Your task to perform on an android device: turn off notifications settings in the gmail app Image 0: 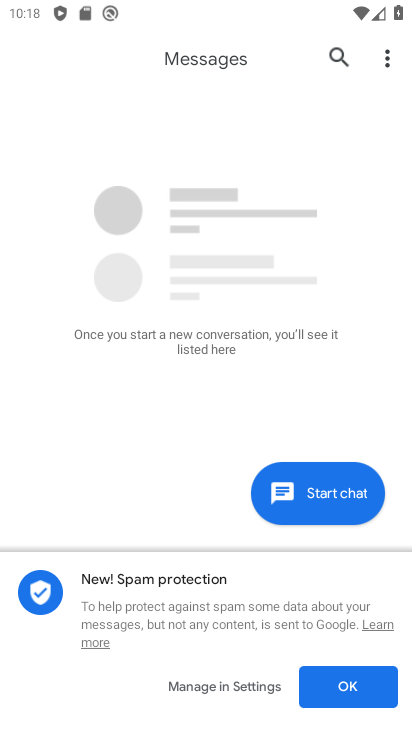
Step 0: press home button
Your task to perform on an android device: turn off notifications settings in the gmail app Image 1: 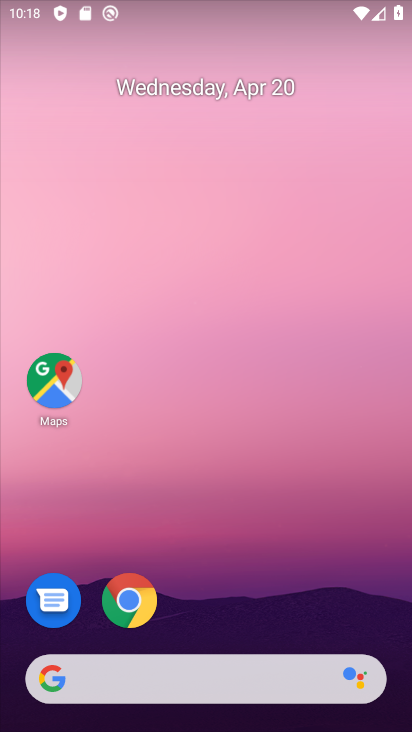
Step 1: drag from (296, 591) to (336, 49)
Your task to perform on an android device: turn off notifications settings in the gmail app Image 2: 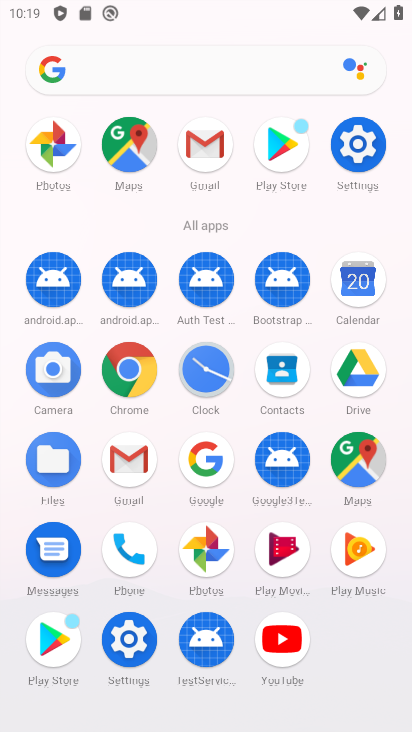
Step 2: click (205, 147)
Your task to perform on an android device: turn off notifications settings in the gmail app Image 3: 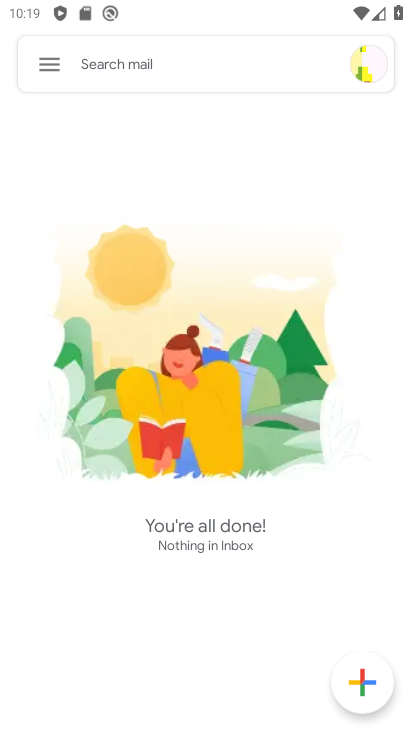
Step 3: click (52, 62)
Your task to perform on an android device: turn off notifications settings in the gmail app Image 4: 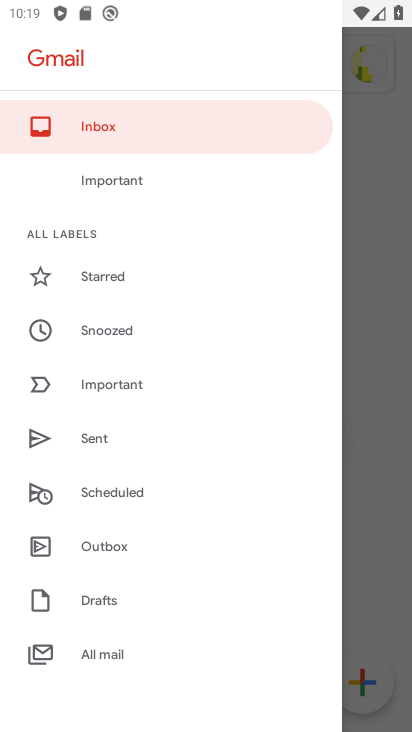
Step 4: drag from (150, 532) to (189, 243)
Your task to perform on an android device: turn off notifications settings in the gmail app Image 5: 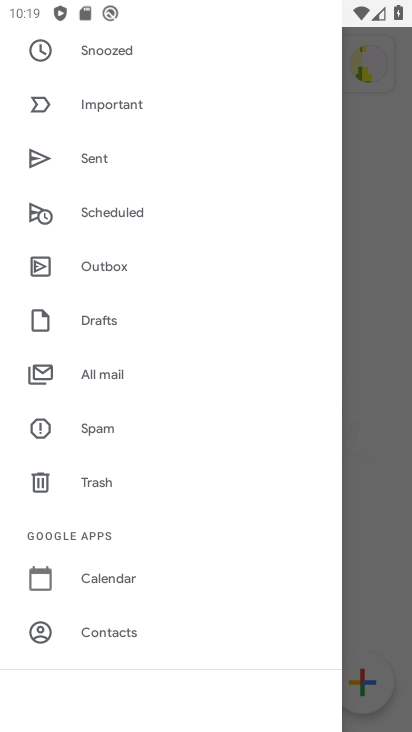
Step 5: drag from (168, 477) to (190, 159)
Your task to perform on an android device: turn off notifications settings in the gmail app Image 6: 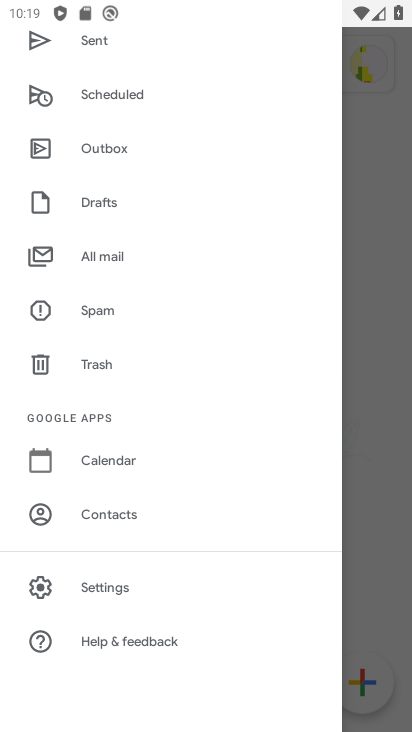
Step 6: click (126, 578)
Your task to perform on an android device: turn off notifications settings in the gmail app Image 7: 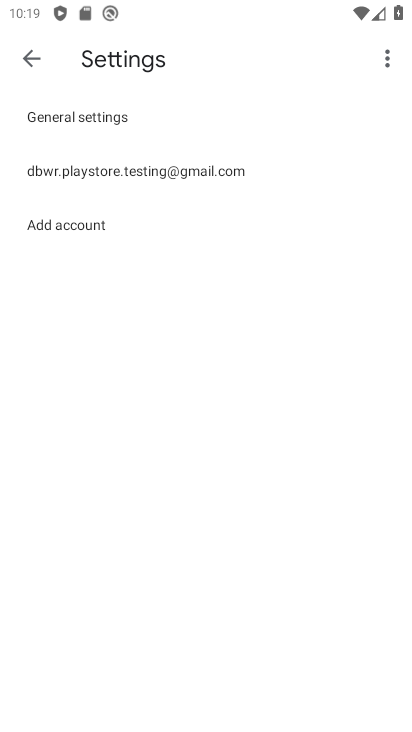
Step 7: click (236, 169)
Your task to perform on an android device: turn off notifications settings in the gmail app Image 8: 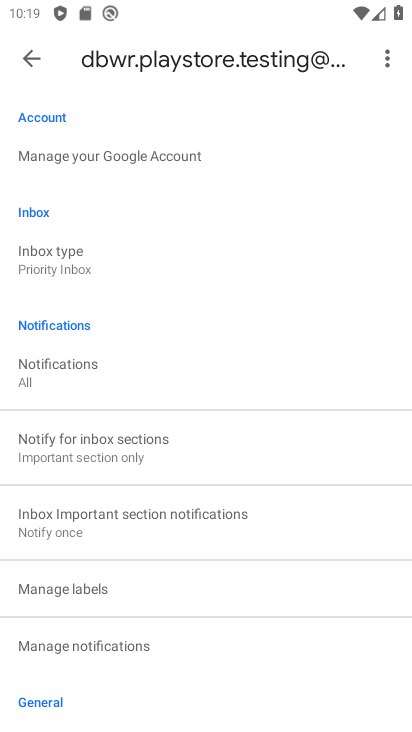
Step 8: click (175, 648)
Your task to perform on an android device: turn off notifications settings in the gmail app Image 9: 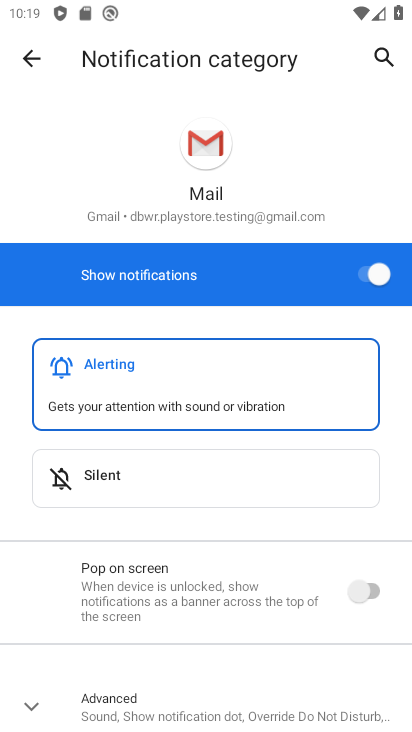
Step 9: click (370, 279)
Your task to perform on an android device: turn off notifications settings in the gmail app Image 10: 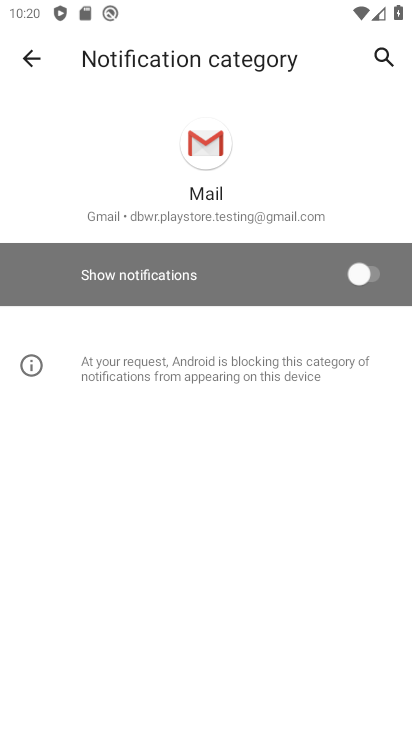
Step 10: task complete